Your task to perform on an android device: see creations saved in the google photos Image 0: 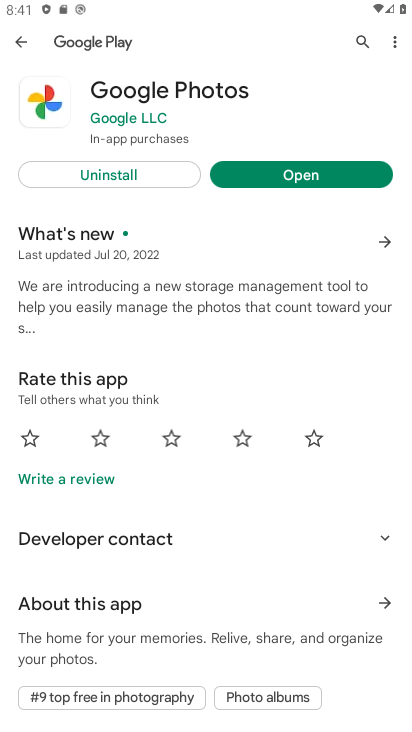
Step 0: click (322, 172)
Your task to perform on an android device: see creations saved in the google photos Image 1: 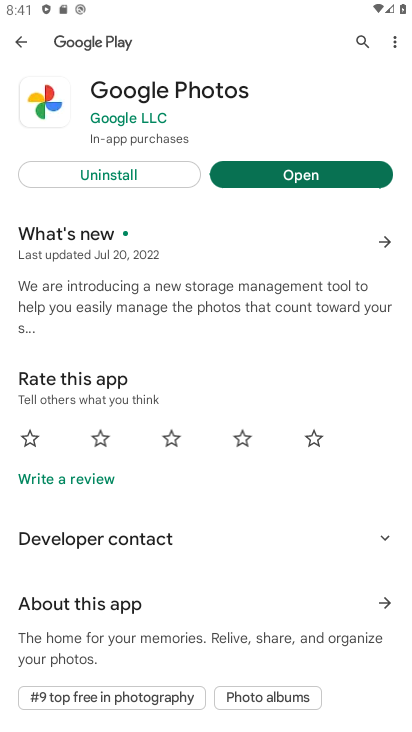
Step 1: click (323, 171)
Your task to perform on an android device: see creations saved in the google photos Image 2: 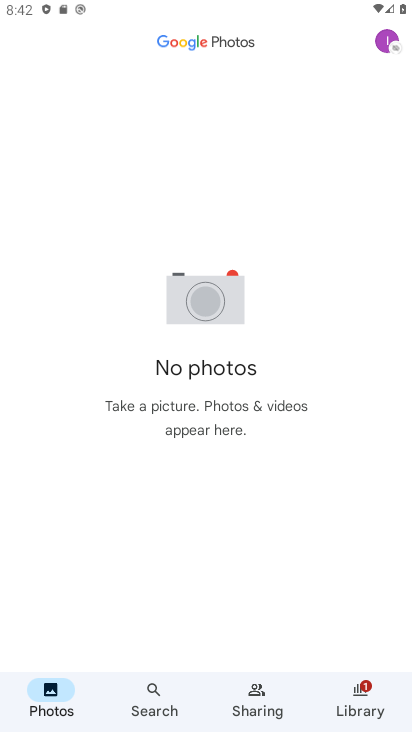
Step 2: task complete